Your task to perform on an android device: turn on showing notifications on the lock screen Image 0: 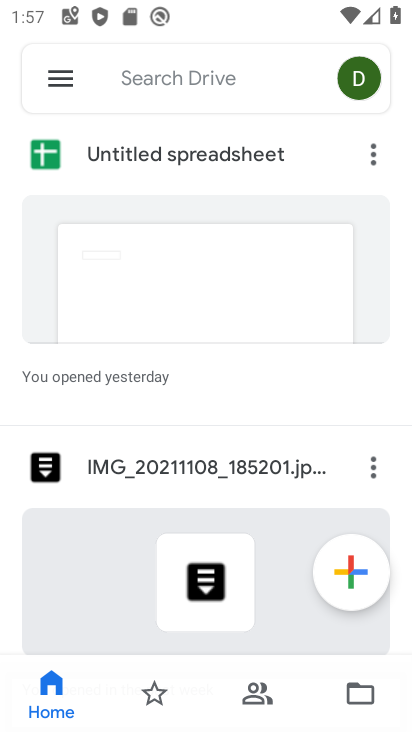
Step 0: press home button
Your task to perform on an android device: turn on showing notifications on the lock screen Image 1: 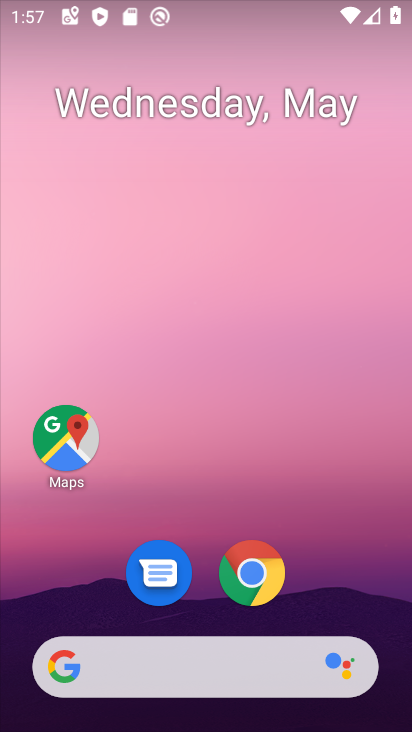
Step 1: drag from (350, 602) to (385, 131)
Your task to perform on an android device: turn on showing notifications on the lock screen Image 2: 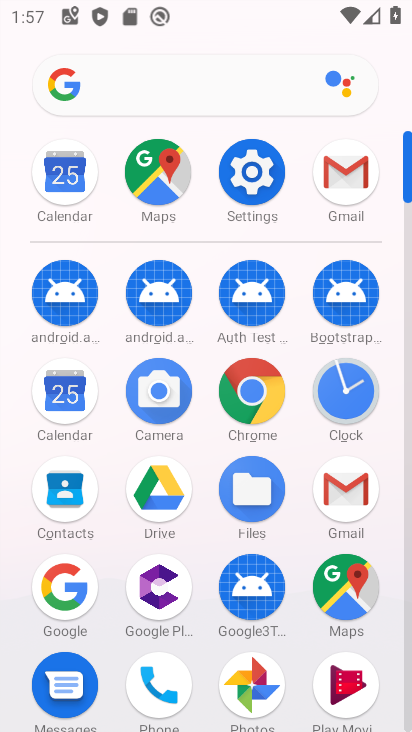
Step 2: click (259, 175)
Your task to perform on an android device: turn on showing notifications on the lock screen Image 3: 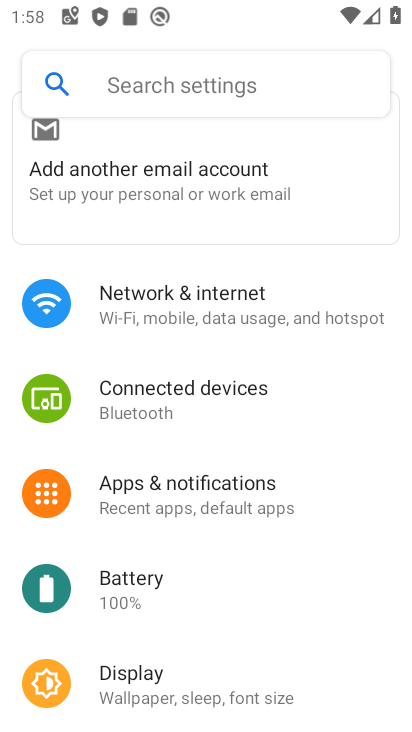
Step 3: click (181, 492)
Your task to perform on an android device: turn on showing notifications on the lock screen Image 4: 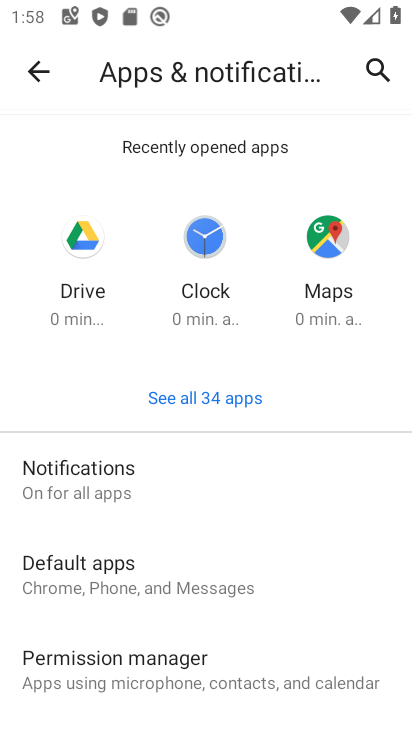
Step 4: click (168, 492)
Your task to perform on an android device: turn on showing notifications on the lock screen Image 5: 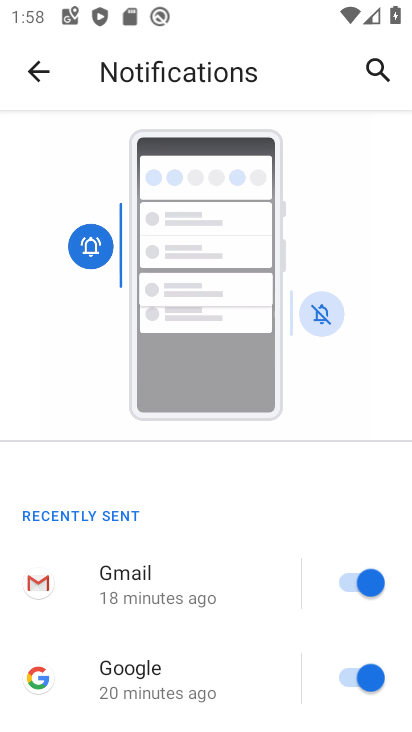
Step 5: drag from (196, 594) to (205, 216)
Your task to perform on an android device: turn on showing notifications on the lock screen Image 6: 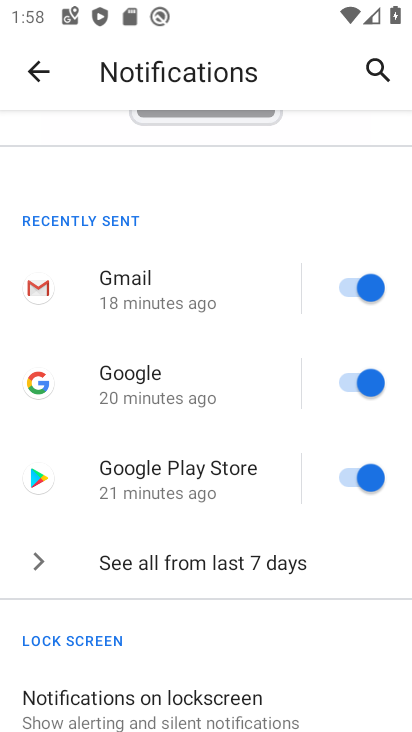
Step 6: drag from (227, 635) to (222, 292)
Your task to perform on an android device: turn on showing notifications on the lock screen Image 7: 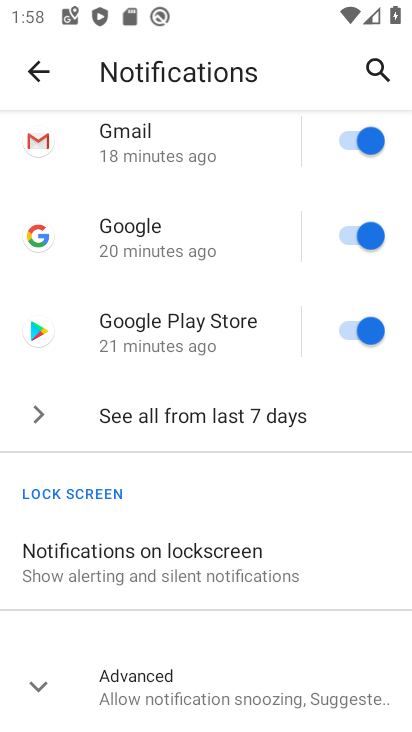
Step 7: click (124, 567)
Your task to perform on an android device: turn on showing notifications on the lock screen Image 8: 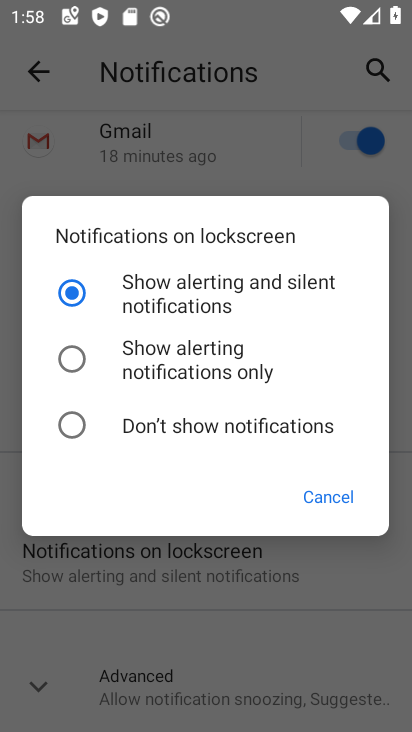
Step 8: click (211, 298)
Your task to perform on an android device: turn on showing notifications on the lock screen Image 9: 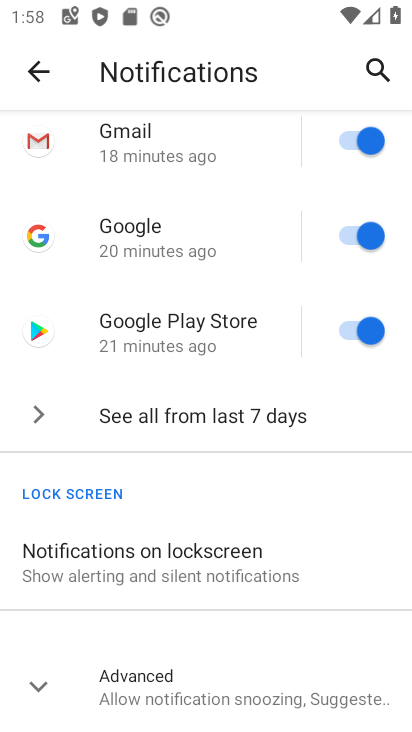
Step 9: task complete